Your task to perform on an android device: View the shopping cart on bestbuy. Image 0: 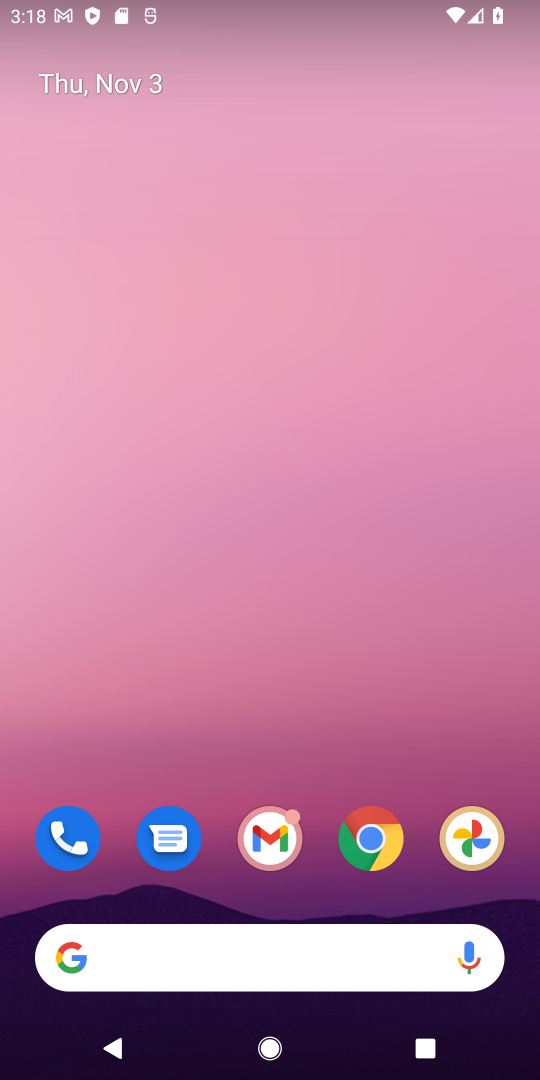
Step 0: drag from (309, 887) to (378, 223)
Your task to perform on an android device: View the shopping cart on bestbuy. Image 1: 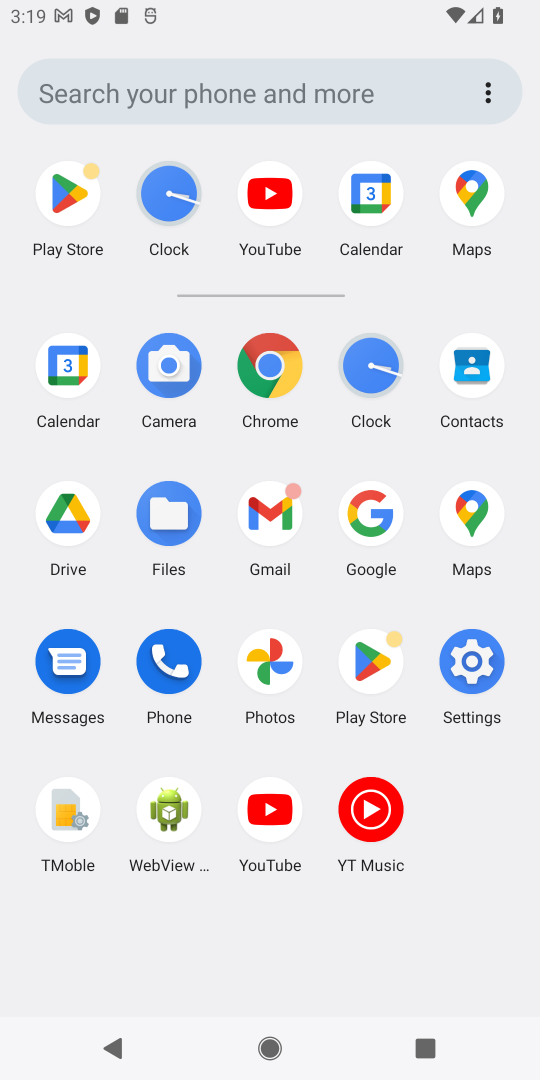
Step 1: click (270, 361)
Your task to perform on an android device: View the shopping cart on bestbuy. Image 2: 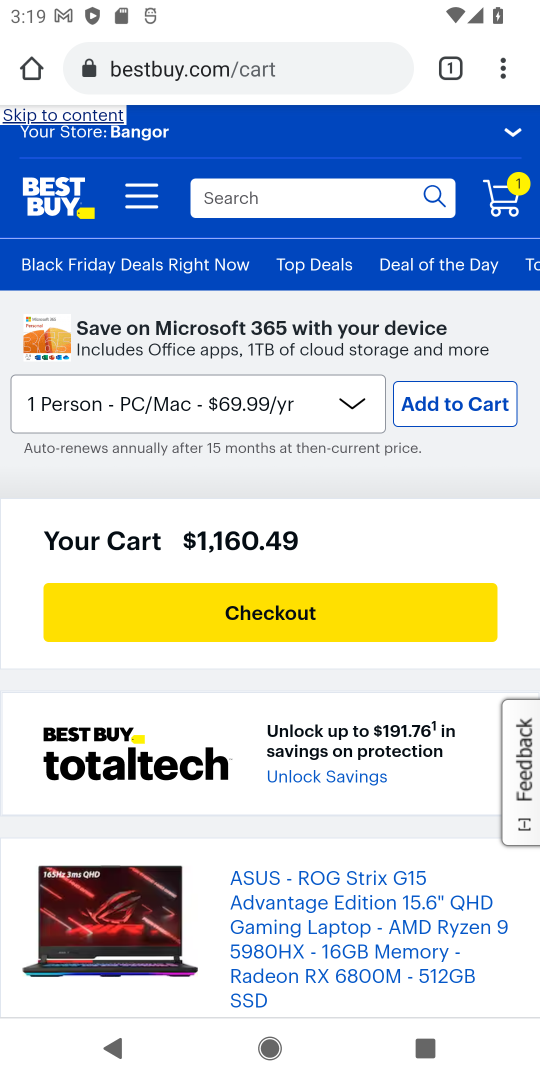
Step 2: click (512, 204)
Your task to perform on an android device: View the shopping cart on bestbuy. Image 3: 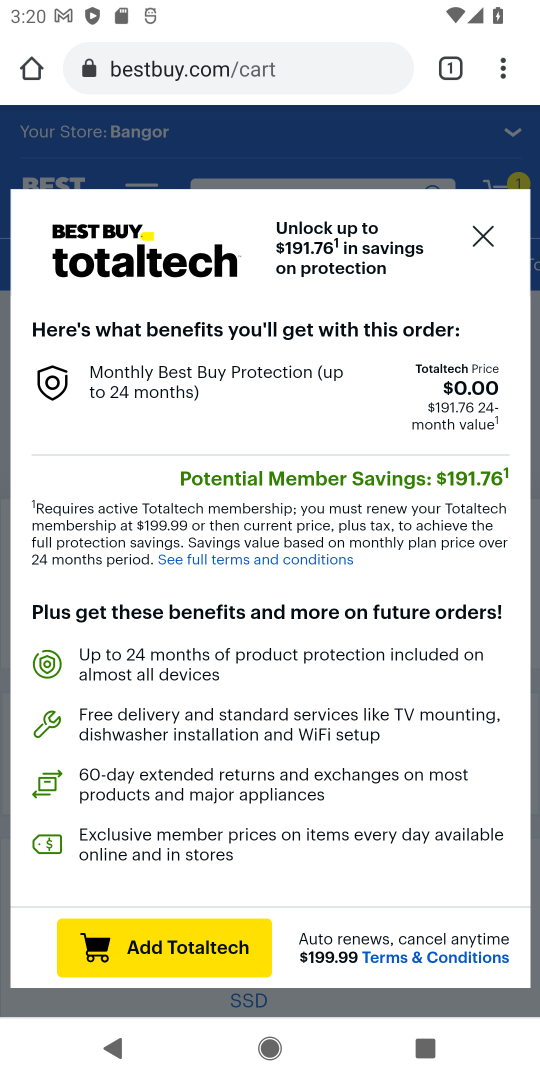
Step 3: click (477, 230)
Your task to perform on an android device: View the shopping cart on bestbuy. Image 4: 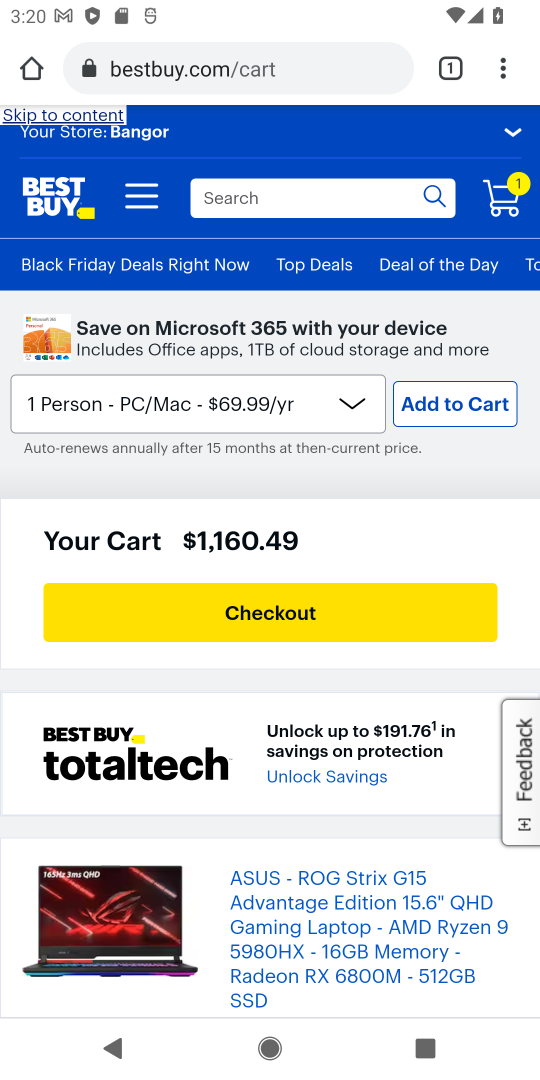
Step 4: task complete